Your task to perform on an android device: delete the emails in spam in the gmail app Image 0: 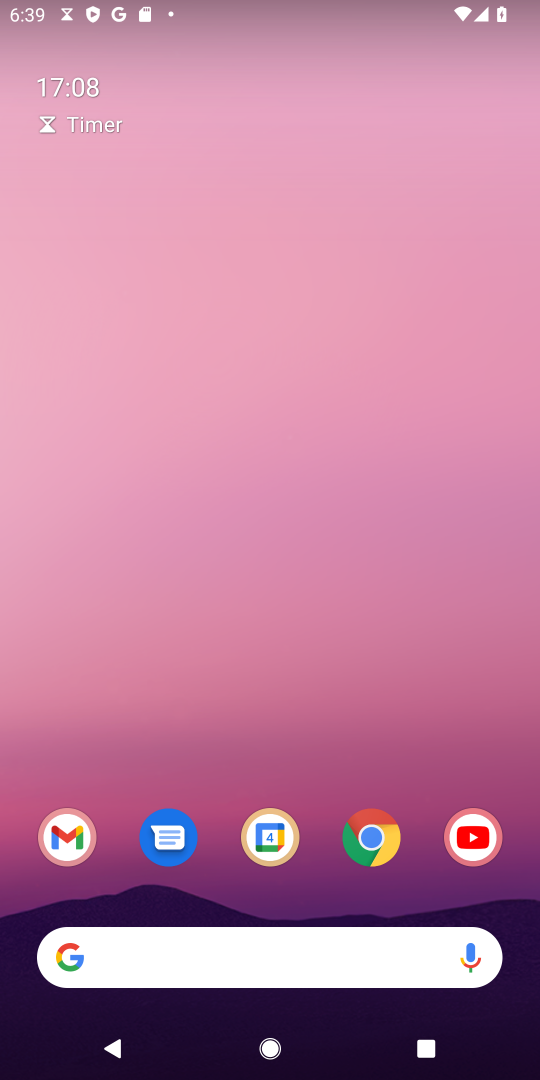
Step 0: press home button
Your task to perform on an android device: delete the emails in spam in the gmail app Image 1: 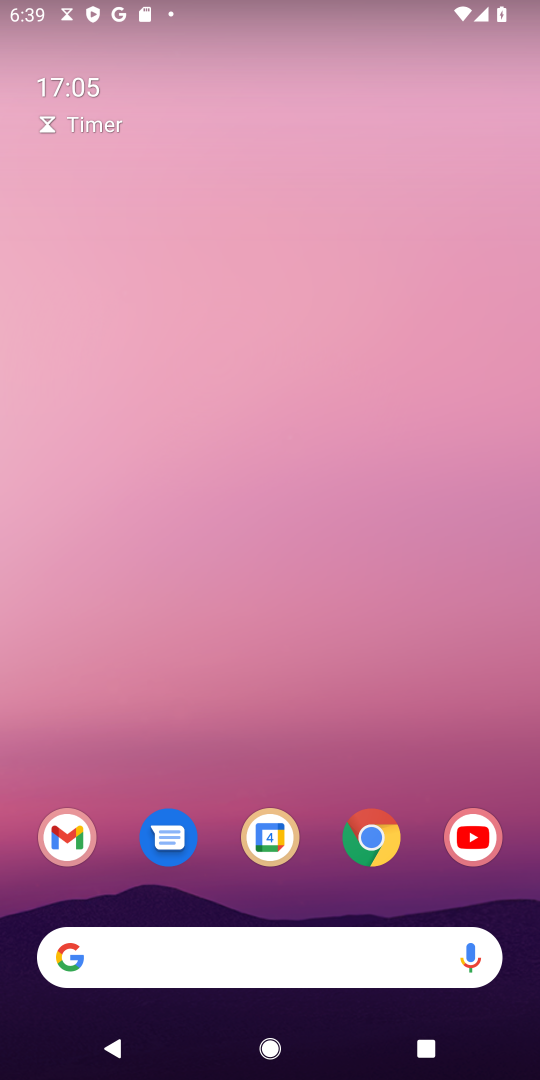
Step 1: drag from (312, 801) to (325, 75)
Your task to perform on an android device: delete the emails in spam in the gmail app Image 2: 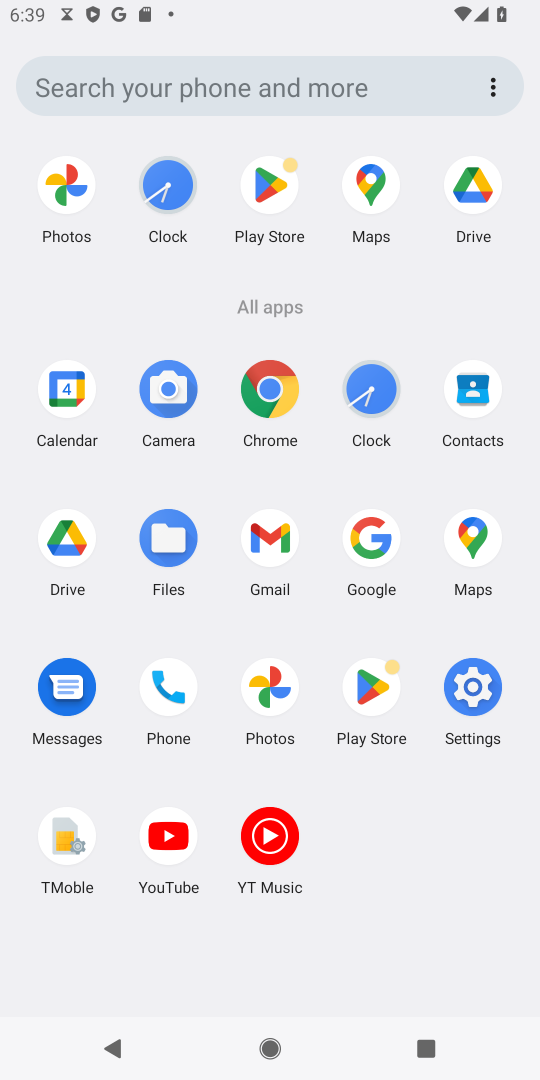
Step 2: click (262, 533)
Your task to perform on an android device: delete the emails in spam in the gmail app Image 3: 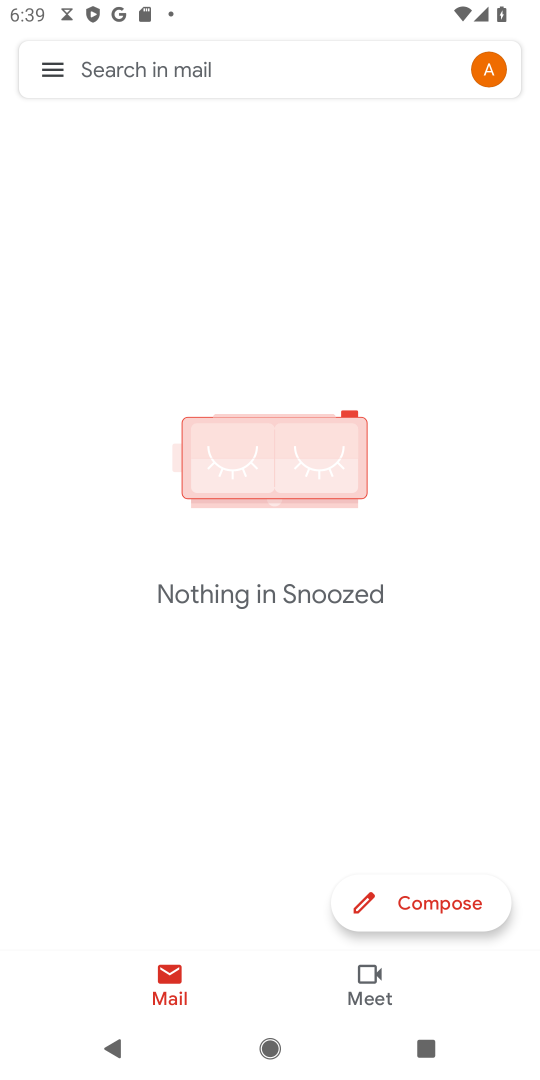
Step 3: click (58, 71)
Your task to perform on an android device: delete the emails in spam in the gmail app Image 4: 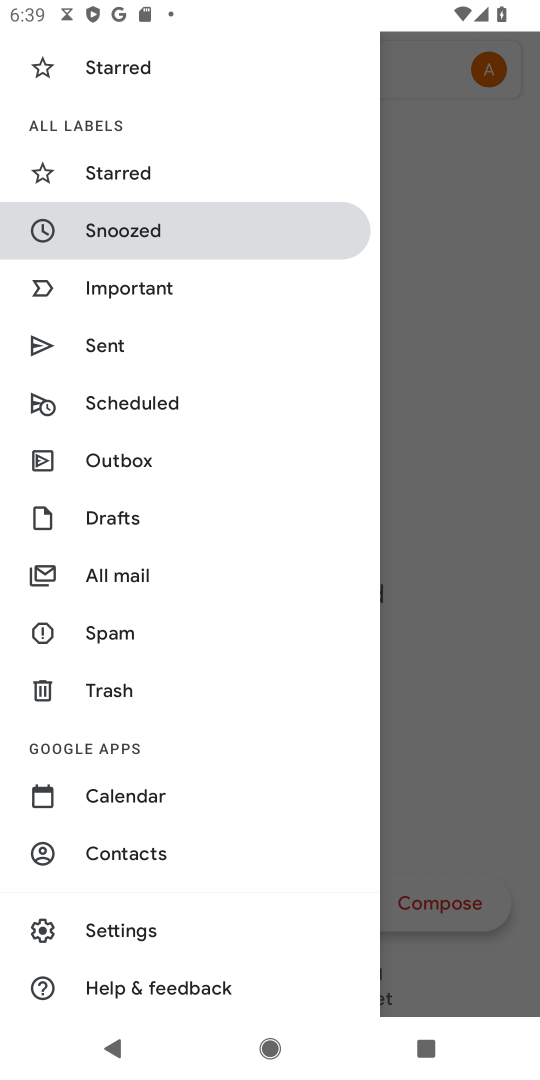
Step 4: click (144, 625)
Your task to perform on an android device: delete the emails in spam in the gmail app Image 5: 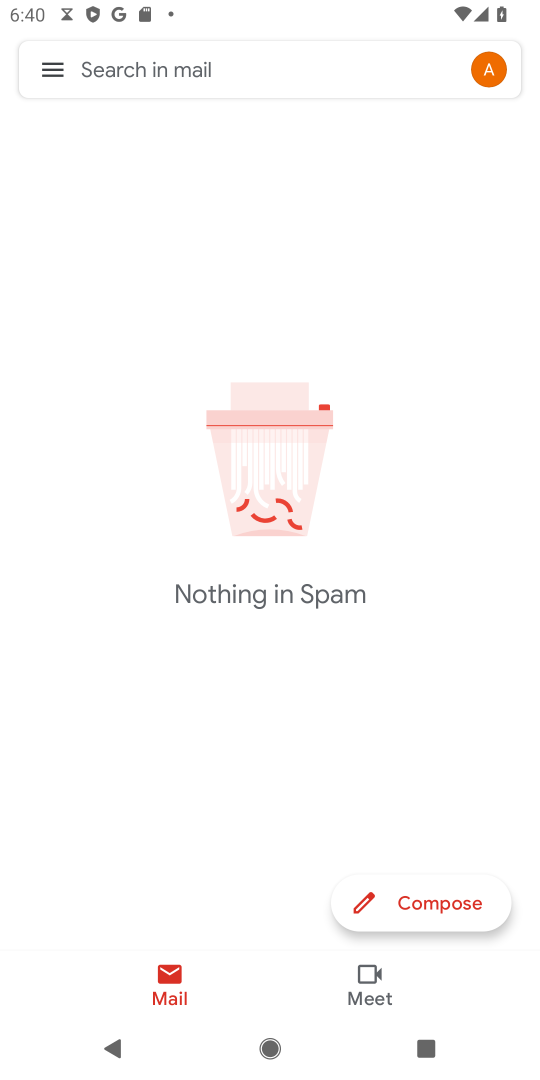
Step 5: task complete